Your task to perform on an android device: Go to battery settings Image 0: 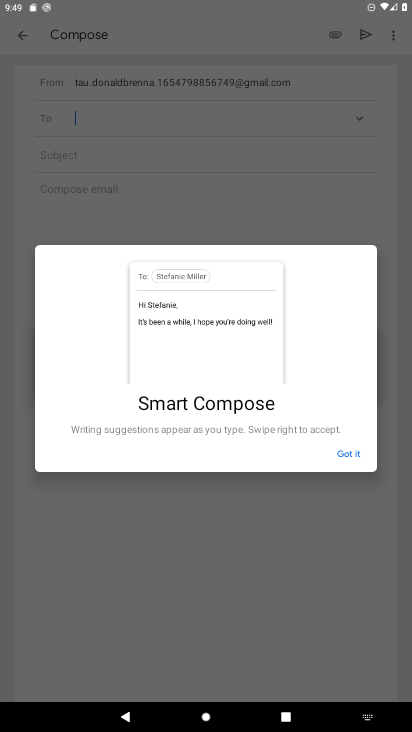
Step 0: press home button
Your task to perform on an android device: Go to battery settings Image 1: 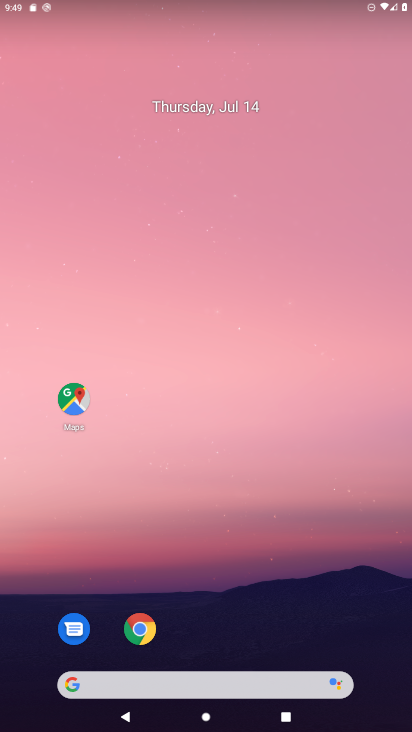
Step 1: drag from (259, 589) to (276, 72)
Your task to perform on an android device: Go to battery settings Image 2: 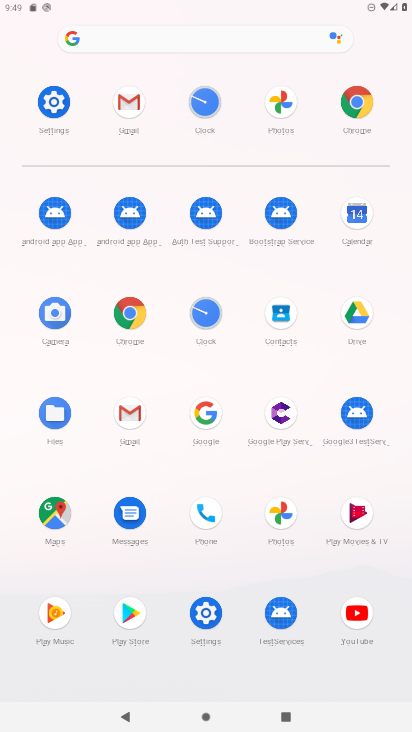
Step 2: click (201, 602)
Your task to perform on an android device: Go to battery settings Image 3: 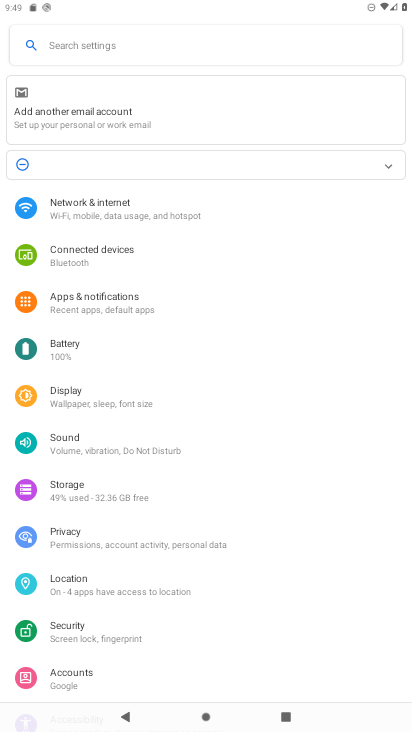
Step 3: click (58, 341)
Your task to perform on an android device: Go to battery settings Image 4: 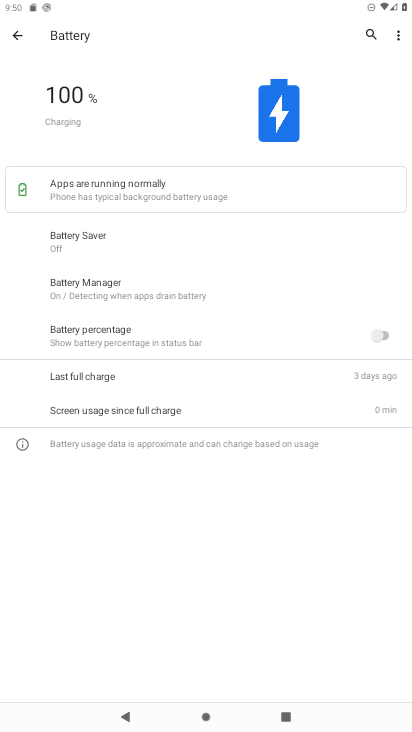
Step 4: task complete